Your task to perform on an android device: When is my next meeting? Image 0: 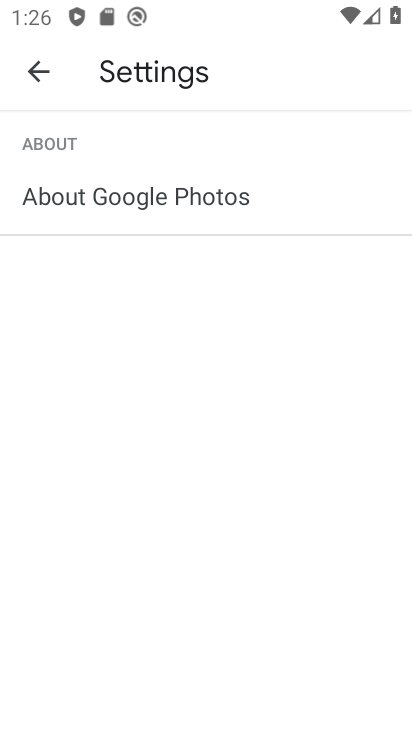
Step 0: drag from (213, 568) to (273, 53)
Your task to perform on an android device: When is my next meeting? Image 1: 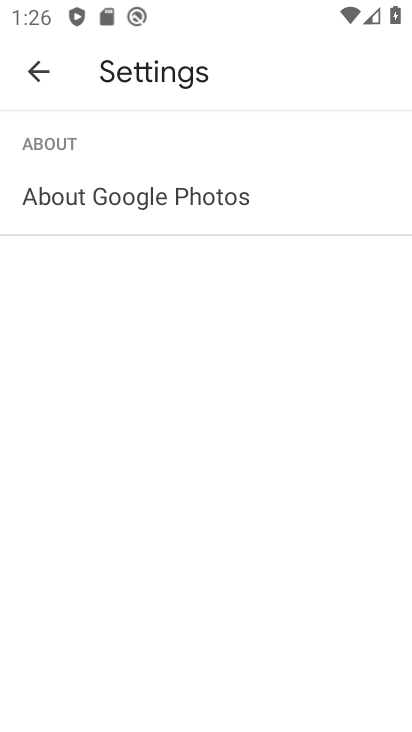
Step 1: press home button
Your task to perform on an android device: When is my next meeting? Image 2: 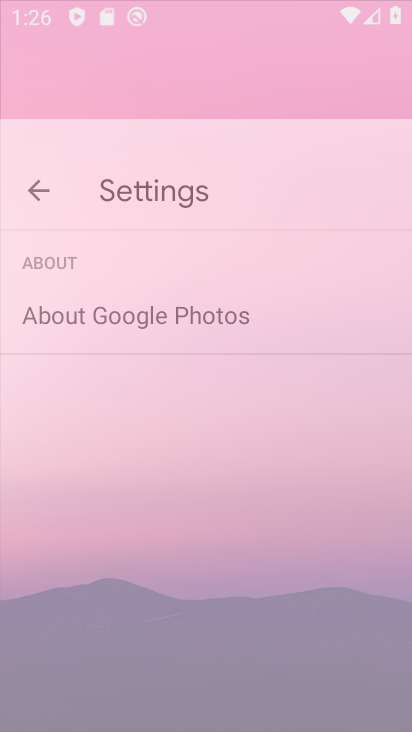
Step 2: drag from (217, 601) to (276, 93)
Your task to perform on an android device: When is my next meeting? Image 3: 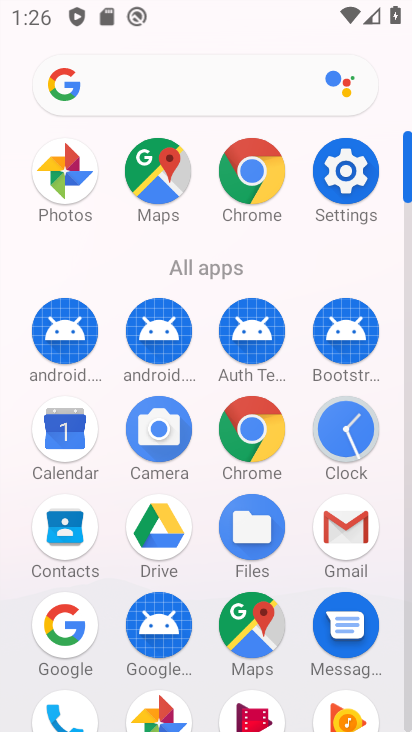
Step 3: click (77, 435)
Your task to perform on an android device: When is my next meeting? Image 4: 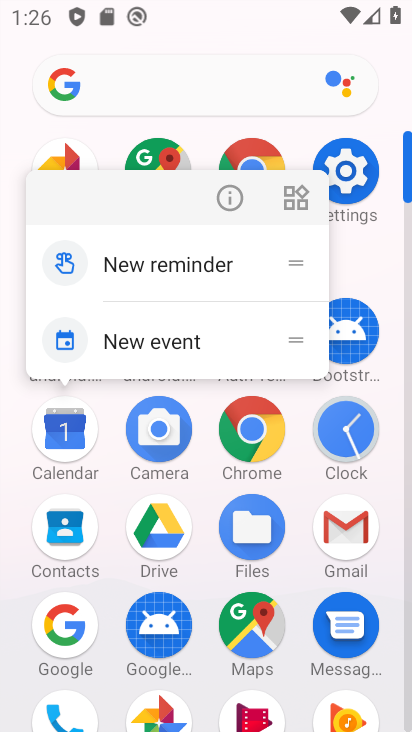
Step 4: click (239, 189)
Your task to perform on an android device: When is my next meeting? Image 5: 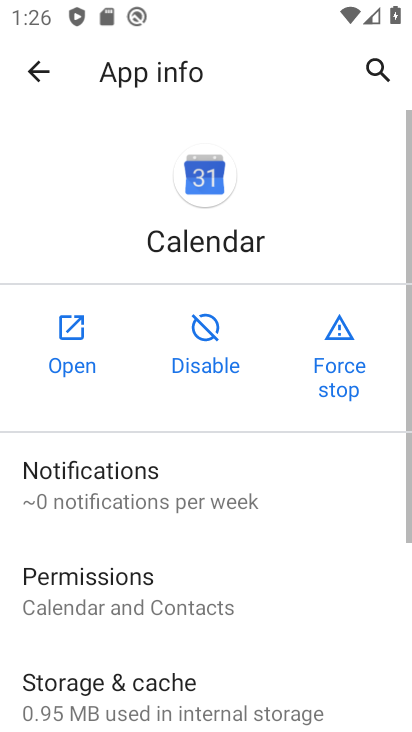
Step 5: click (77, 364)
Your task to perform on an android device: When is my next meeting? Image 6: 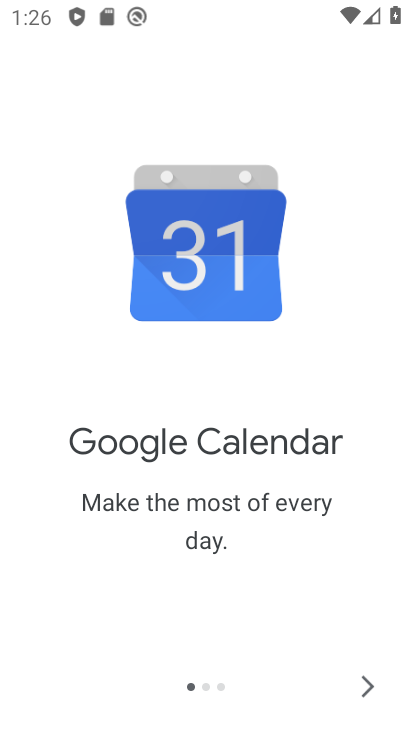
Step 6: click (379, 670)
Your task to perform on an android device: When is my next meeting? Image 7: 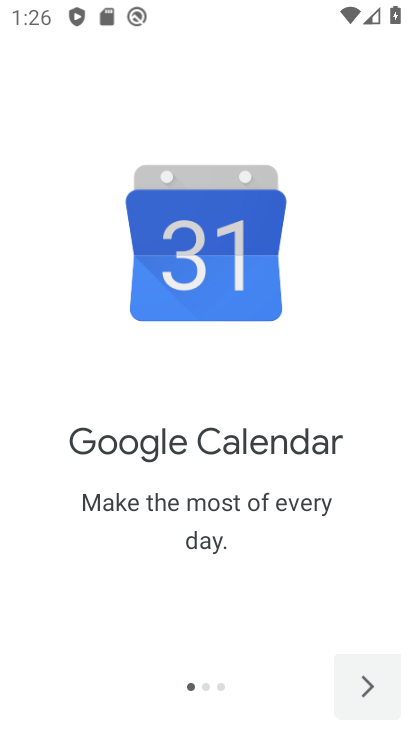
Step 7: click (377, 676)
Your task to perform on an android device: When is my next meeting? Image 8: 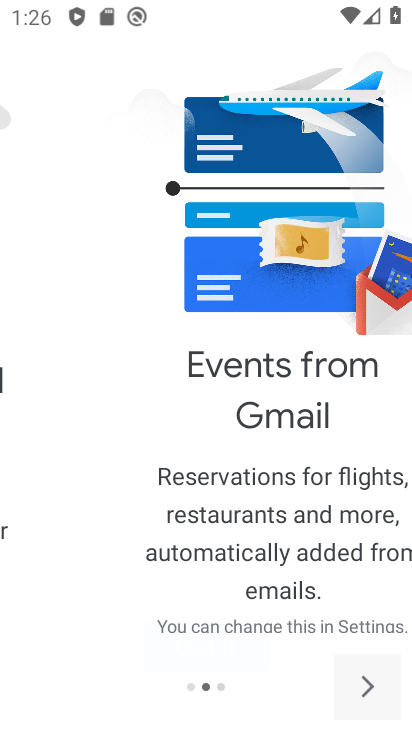
Step 8: click (368, 678)
Your task to perform on an android device: When is my next meeting? Image 9: 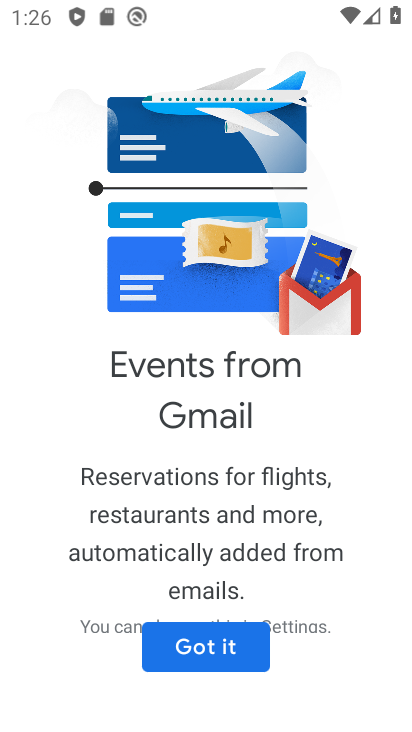
Step 9: click (368, 678)
Your task to perform on an android device: When is my next meeting? Image 10: 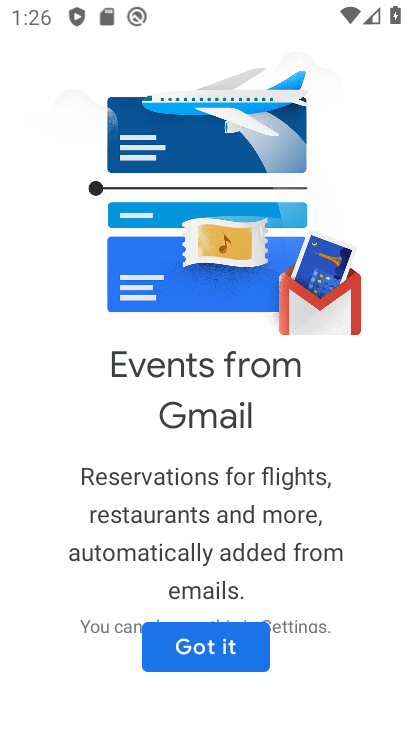
Step 10: click (249, 677)
Your task to perform on an android device: When is my next meeting? Image 11: 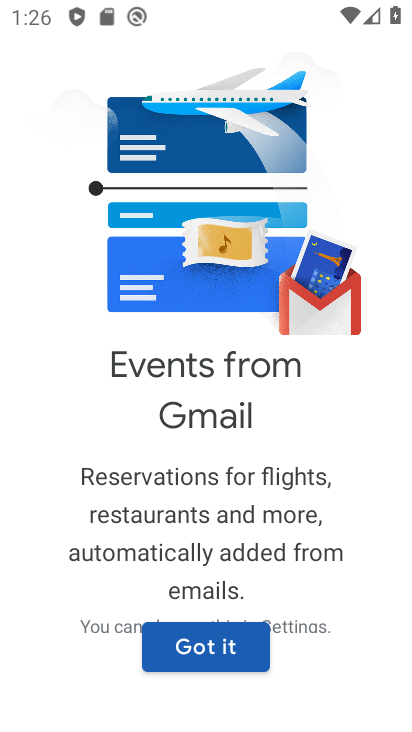
Step 11: click (128, 625)
Your task to perform on an android device: When is my next meeting? Image 12: 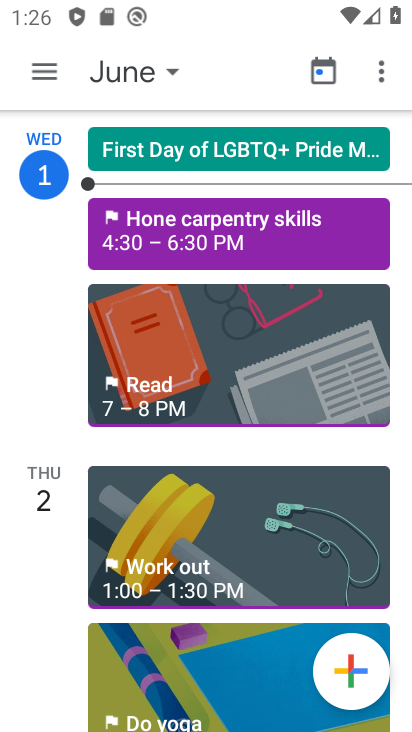
Step 12: click (131, 71)
Your task to perform on an android device: When is my next meeting? Image 13: 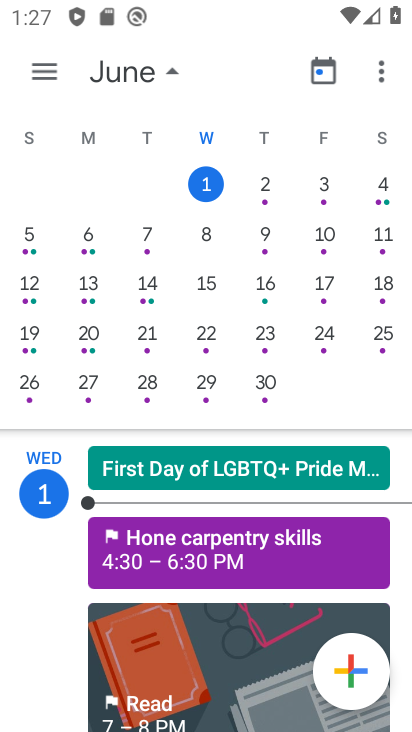
Step 13: click (214, 198)
Your task to perform on an android device: When is my next meeting? Image 14: 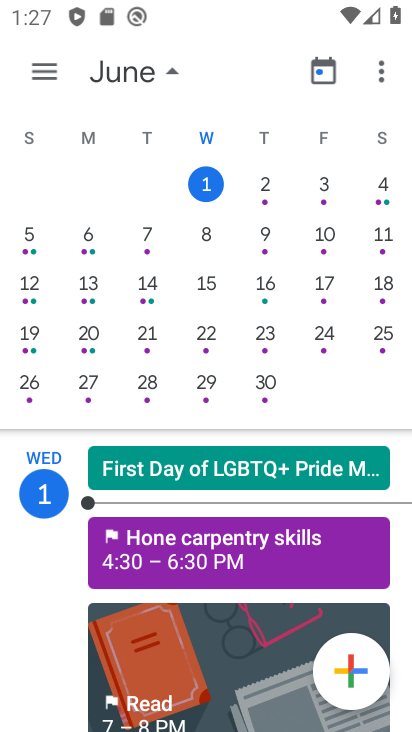
Step 14: task complete